Your task to perform on an android device: turn off improve location accuracy Image 0: 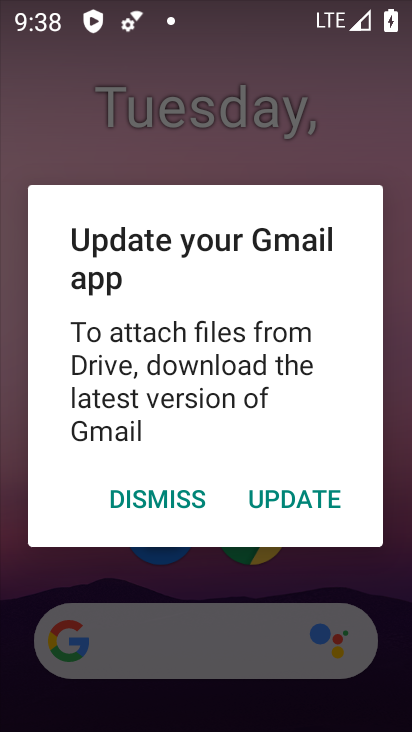
Step 0: click (174, 491)
Your task to perform on an android device: turn off improve location accuracy Image 1: 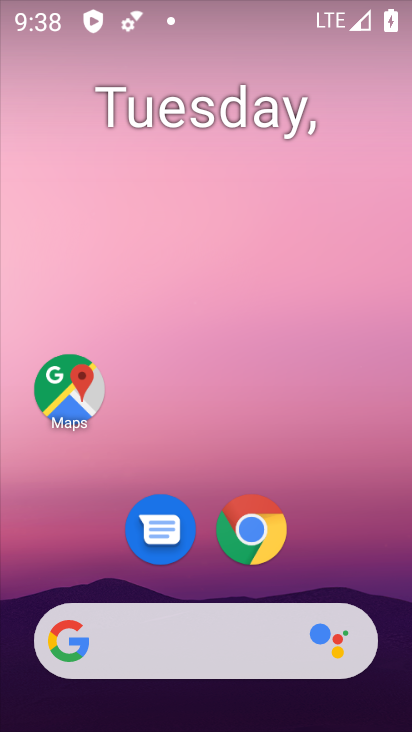
Step 1: drag from (304, 531) to (245, 34)
Your task to perform on an android device: turn off improve location accuracy Image 2: 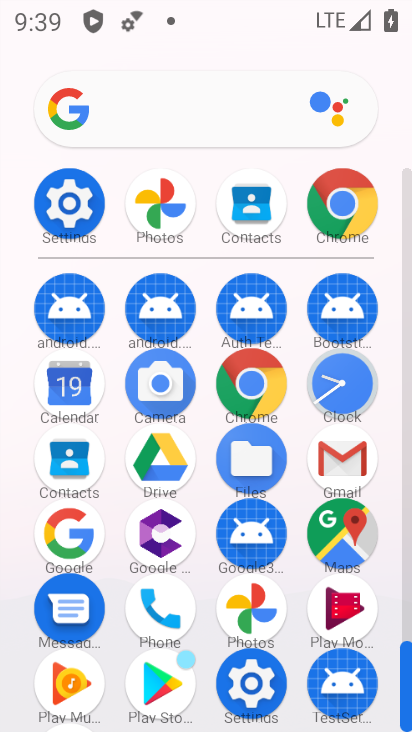
Step 2: drag from (310, 616) to (324, 206)
Your task to perform on an android device: turn off improve location accuracy Image 3: 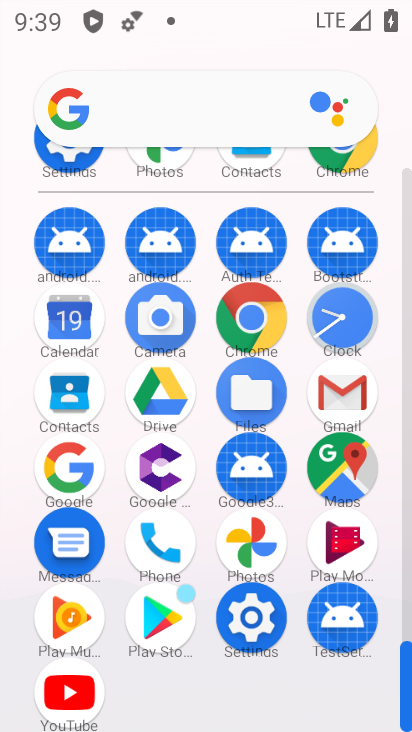
Step 3: click (258, 612)
Your task to perform on an android device: turn off improve location accuracy Image 4: 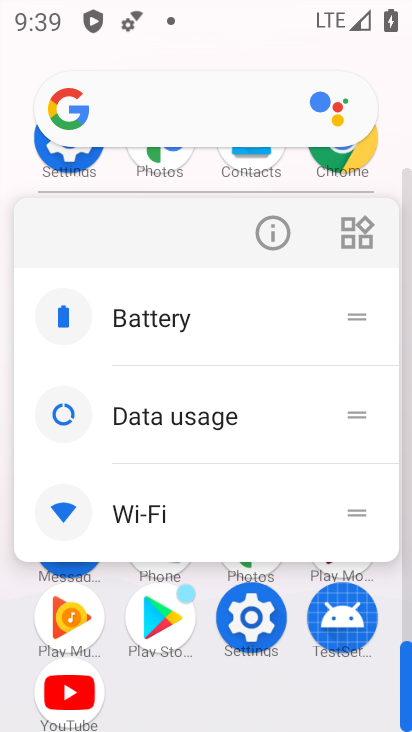
Step 4: click (259, 612)
Your task to perform on an android device: turn off improve location accuracy Image 5: 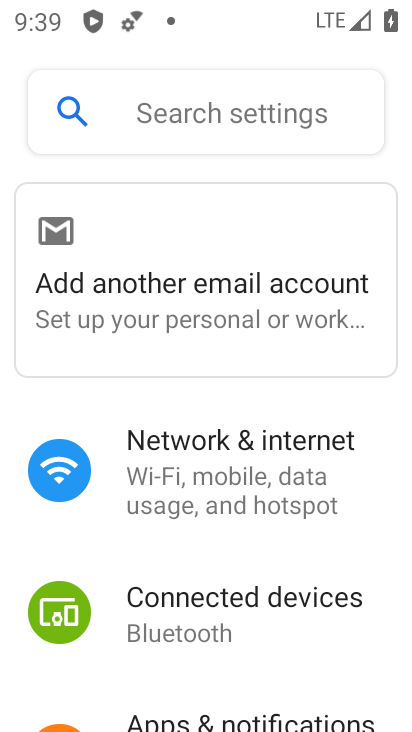
Step 5: drag from (298, 590) to (252, 165)
Your task to perform on an android device: turn off improve location accuracy Image 6: 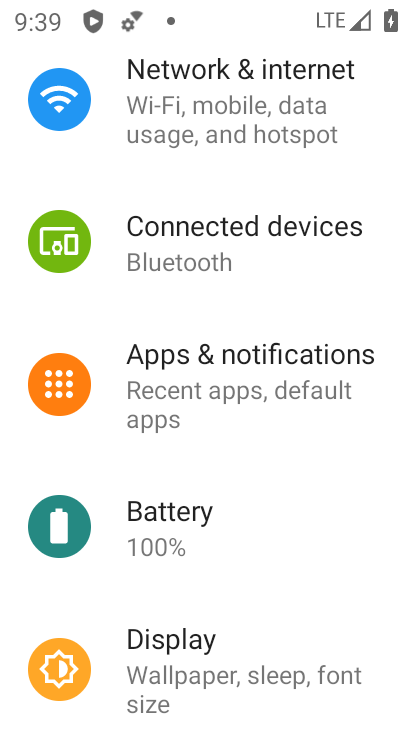
Step 6: drag from (299, 582) to (318, 393)
Your task to perform on an android device: turn off improve location accuracy Image 7: 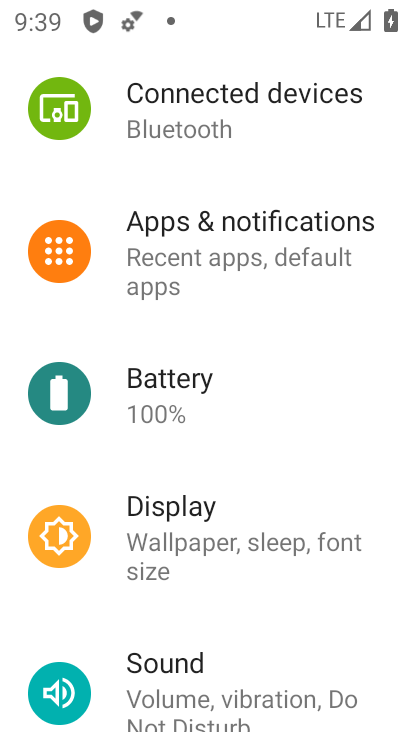
Step 7: drag from (299, 645) to (318, 280)
Your task to perform on an android device: turn off improve location accuracy Image 8: 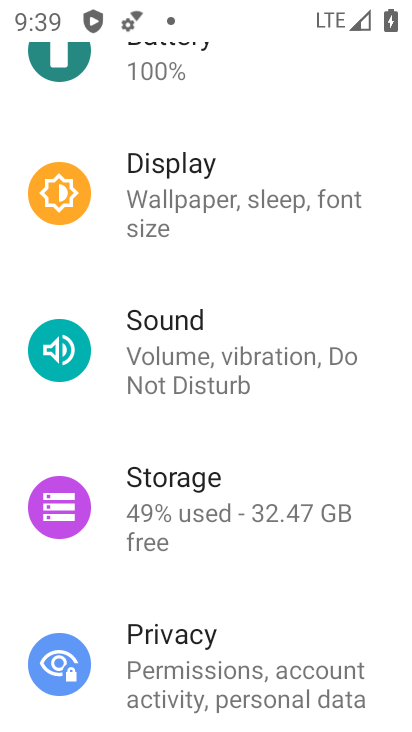
Step 8: drag from (311, 680) to (312, 128)
Your task to perform on an android device: turn off improve location accuracy Image 9: 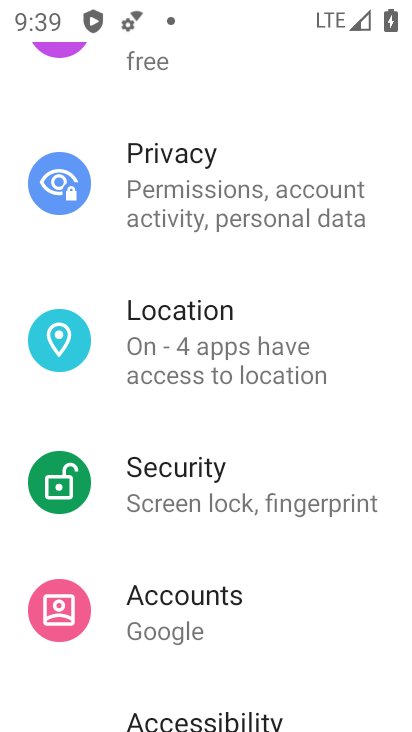
Step 9: click (256, 348)
Your task to perform on an android device: turn off improve location accuracy Image 10: 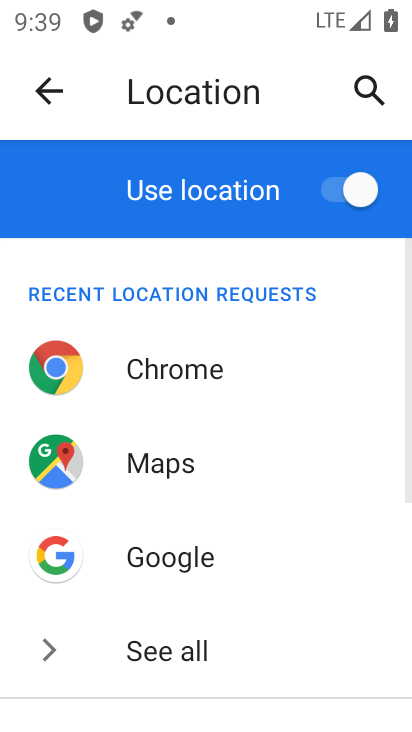
Step 10: drag from (302, 627) to (342, 228)
Your task to perform on an android device: turn off improve location accuracy Image 11: 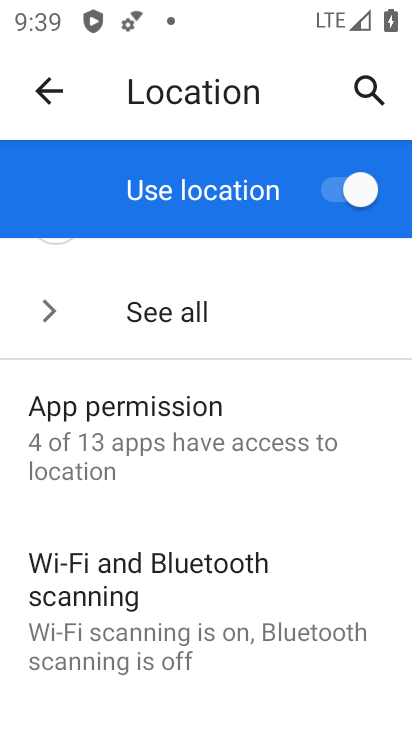
Step 11: drag from (276, 685) to (261, 274)
Your task to perform on an android device: turn off improve location accuracy Image 12: 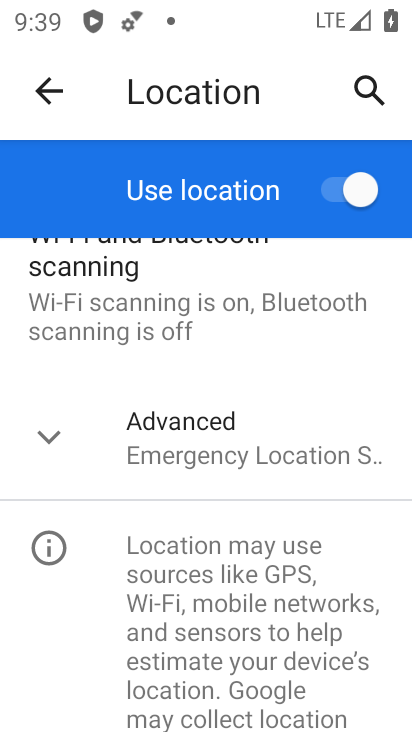
Step 12: click (209, 434)
Your task to perform on an android device: turn off improve location accuracy Image 13: 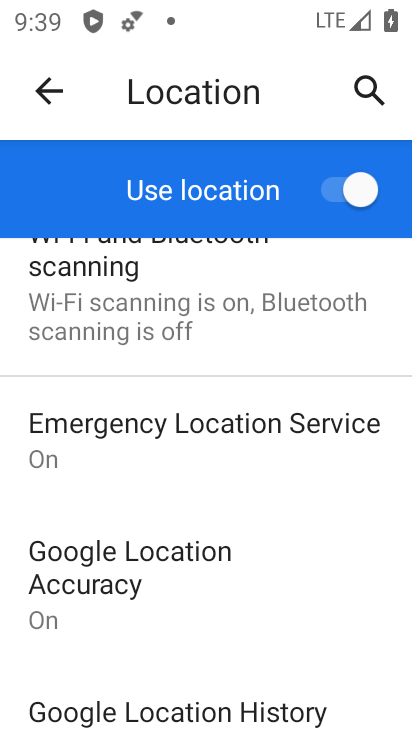
Step 13: drag from (309, 693) to (291, 257)
Your task to perform on an android device: turn off improve location accuracy Image 14: 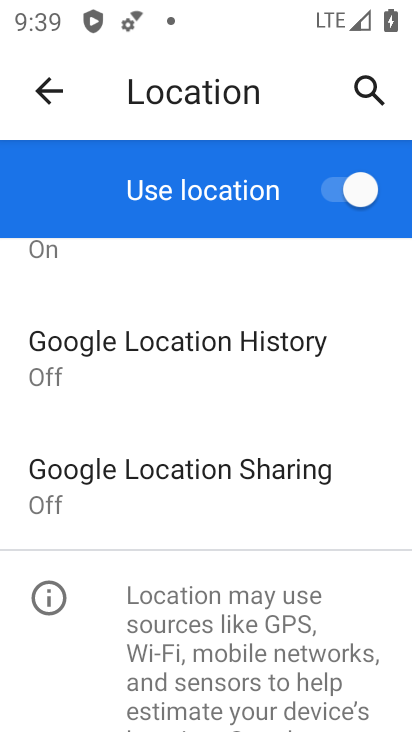
Step 14: drag from (206, 335) to (248, 664)
Your task to perform on an android device: turn off improve location accuracy Image 15: 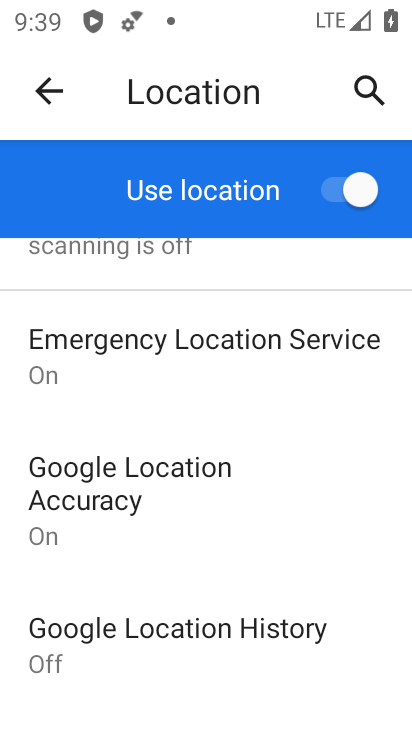
Step 15: click (201, 496)
Your task to perform on an android device: turn off improve location accuracy Image 16: 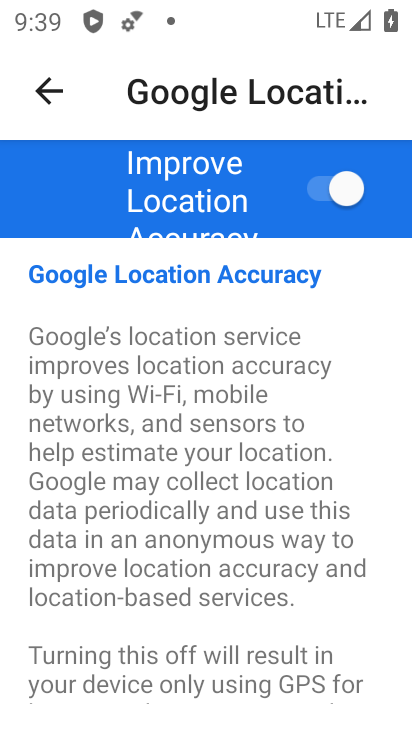
Step 16: click (321, 192)
Your task to perform on an android device: turn off improve location accuracy Image 17: 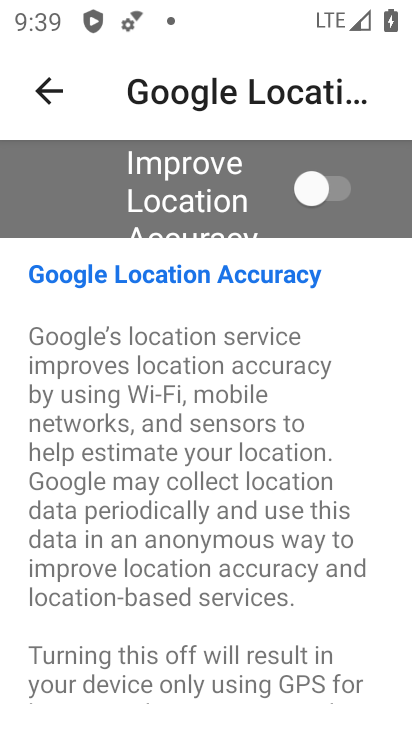
Step 17: task complete